Your task to perform on an android device: Open calendar and show me the fourth week of next month Image 0: 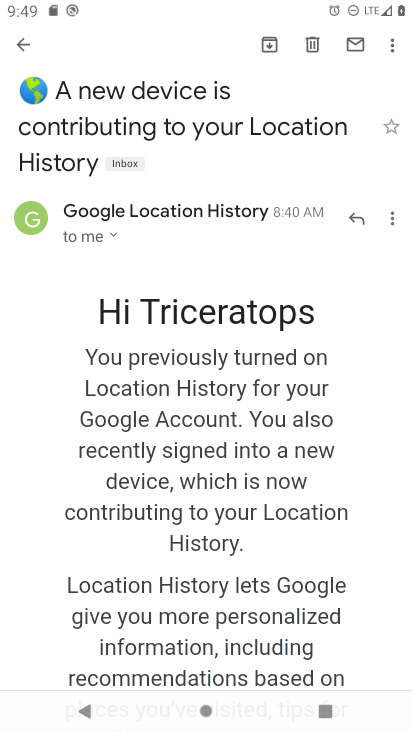
Step 0: press home button
Your task to perform on an android device: Open calendar and show me the fourth week of next month Image 1: 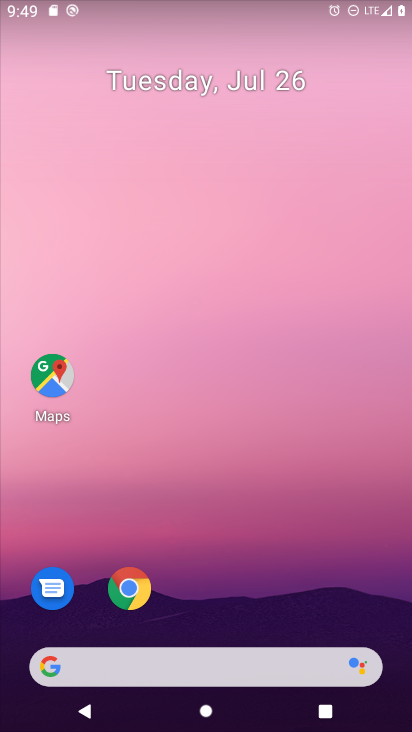
Step 1: drag from (256, 665) to (209, 165)
Your task to perform on an android device: Open calendar and show me the fourth week of next month Image 2: 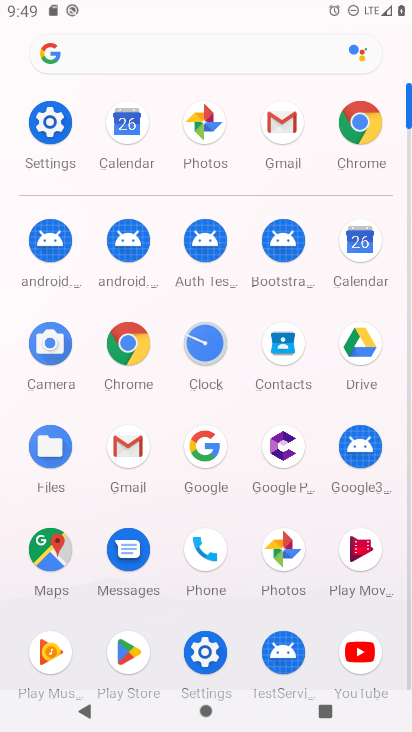
Step 2: click (362, 247)
Your task to perform on an android device: Open calendar and show me the fourth week of next month Image 3: 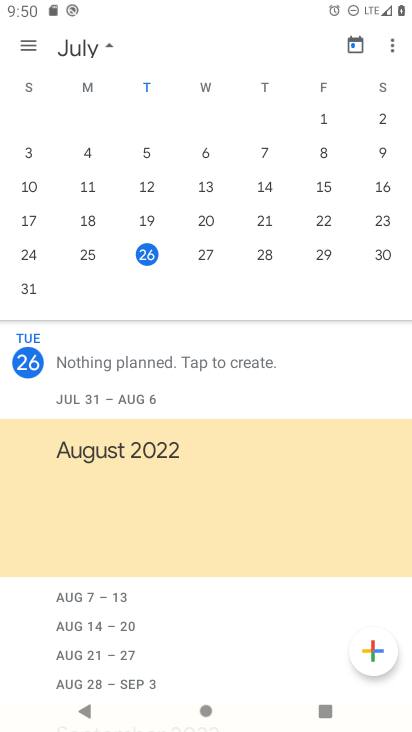
Step 3: drag from (312, 193) to (15, 223)
Your task to perform on an android device: Open calendar and show me the fourth week of next month Image 4: 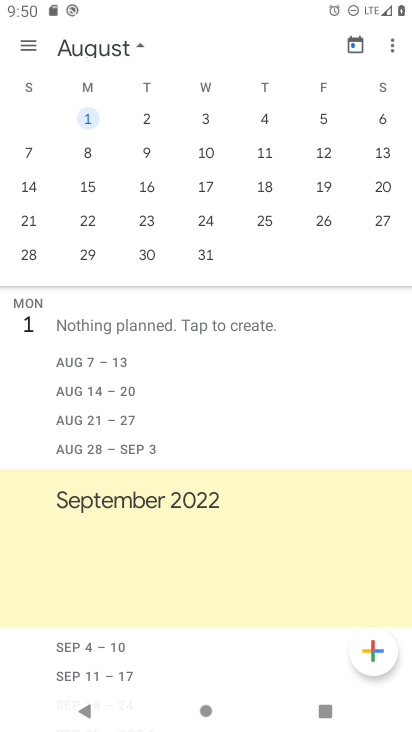
Step 4: click (94, 227)
Your task to perform on an android device: Open calendar and show me the fourth week of next month Image 5: 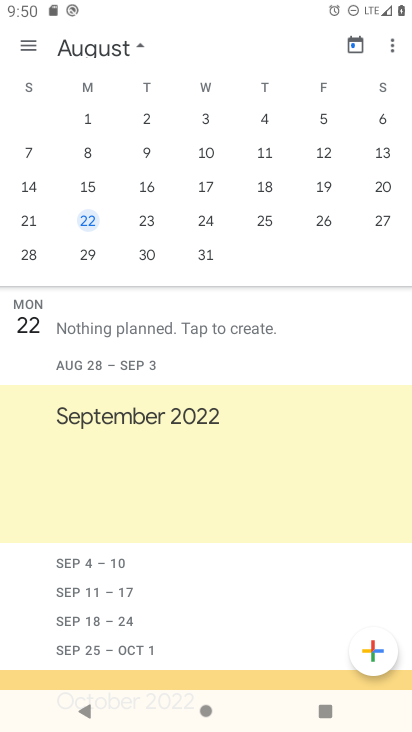
Step 5: task complete